Your task to perform on an android device: Open calendar and show me the fourth week of next month Image 0: 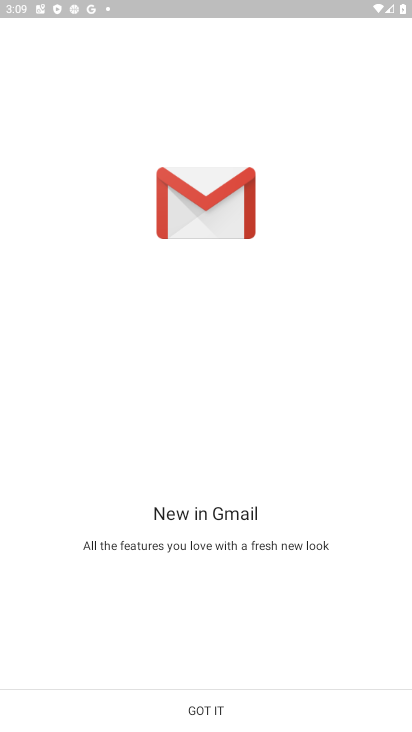
Step 0: click (188, 712)
Your task to perform on an android device: Open calendar and show me the fourth week of next month Image 1: 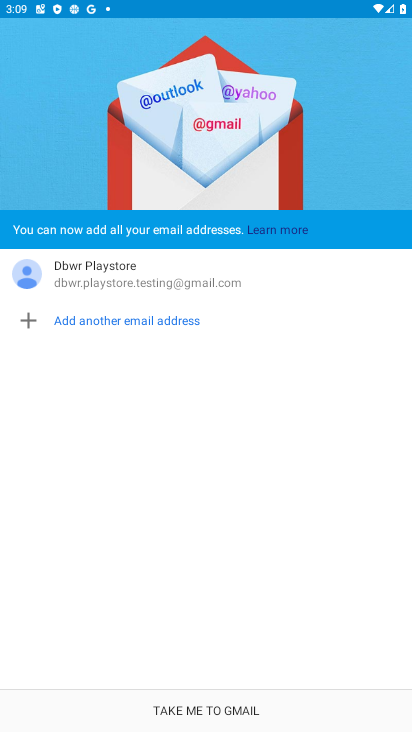
Step 1: press home button
Your task to perform on an android device: Open calendar and show me the fourth week of next month Image 2: 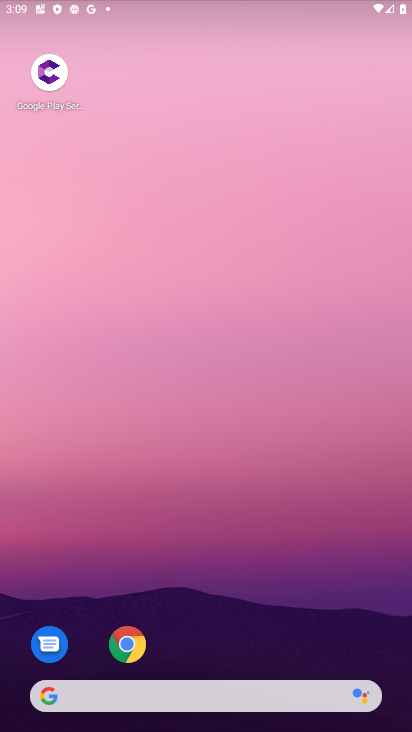
Step 2: drag from (316, 589) to (311, 131)
Your task to perform on an android device: Open calendar and show me the fourth week of next month Image 3: 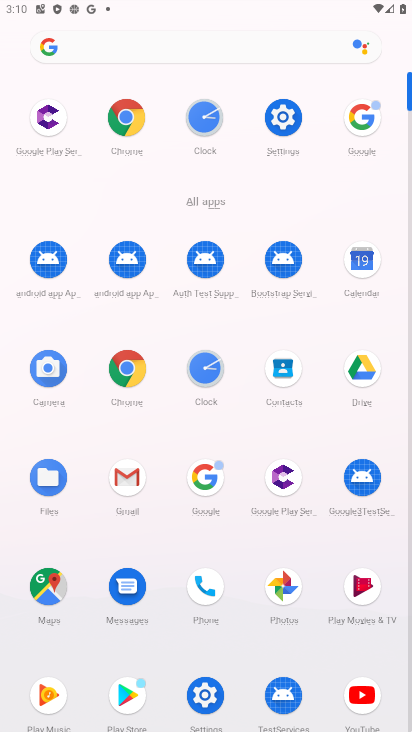
Step 3: click (364, 265)
Your task to perform on an android device: Open calendar and show me the fourth week of next month Image 4: 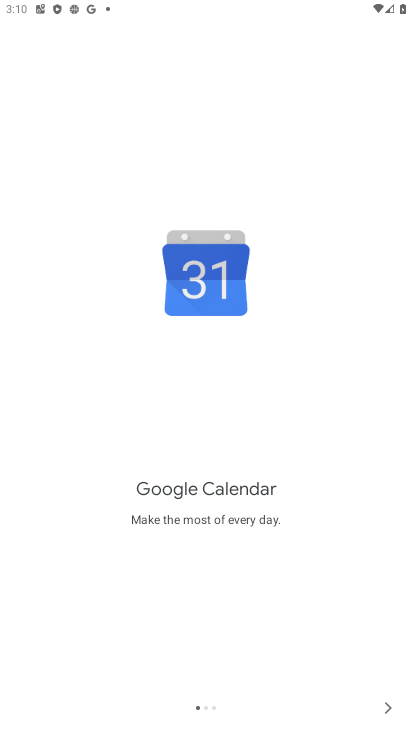
Step 4: click (380, 712)
Your task to perform on an android device: Open calendar and show me the fourth week of next month Image 5: 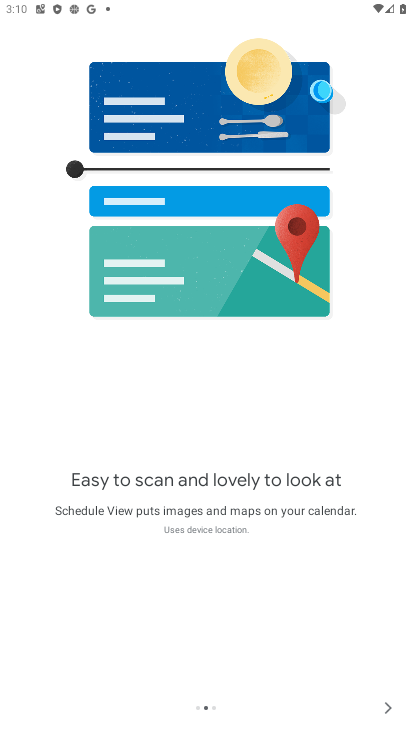
Step 5: click (380, 712)
Your task to perform on an android device: Open calendar and show me the fourth week of next month Image 6: 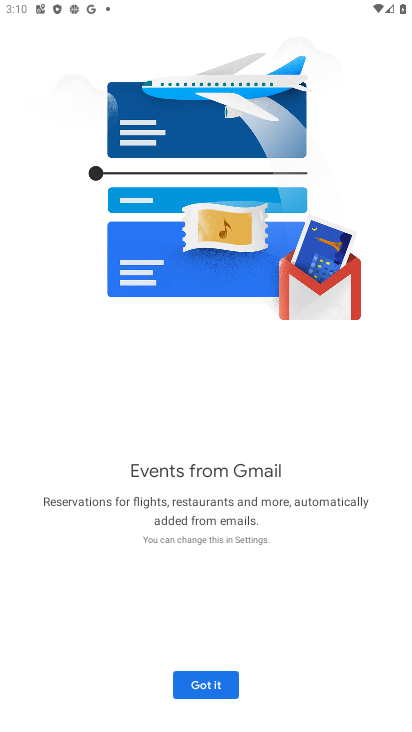
Step 6: click (204, 687)
Your task to perform on an android device: Open calendar and show me the fourth week of next month Image 7: 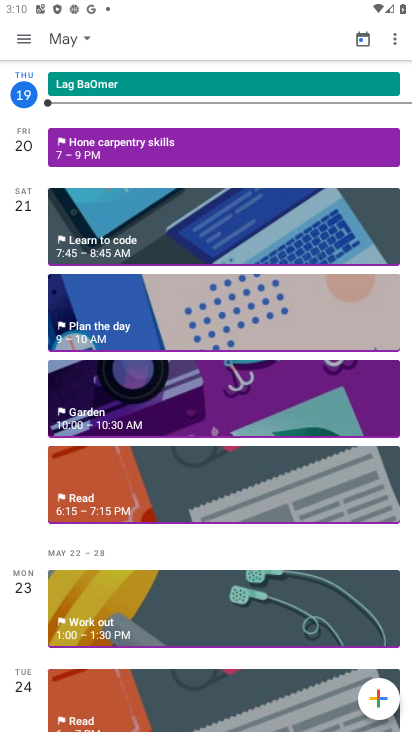
Step 7: click (77, 42)
Your task to perform on an android device: Open calendar and show me the fourth week of next month Image 8: 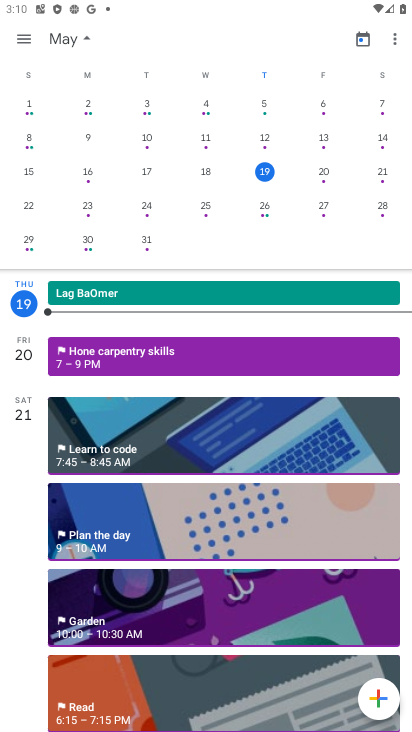
Step 8: drag from (380, 203) to (0, 199)
Your task to perform on an android device: Open calendar and show me the fourth week of next month Image 9: 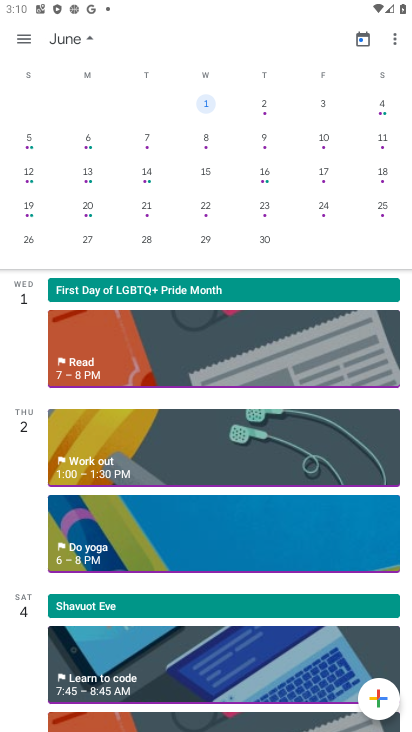
Step 9: click (30, 210)
Your task to perform on an android device: Open calendar and show me the fourth week of next month Image 10: 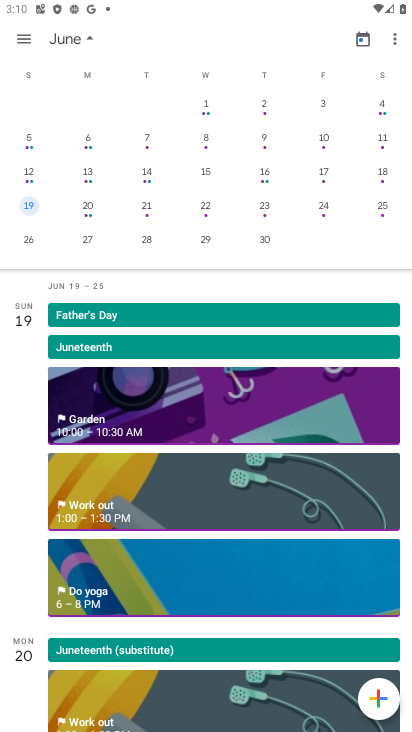
Step 10: click (85, 215)
Your task to perform on an android device: Open calendar and show me the fourth week of next month Image 11: 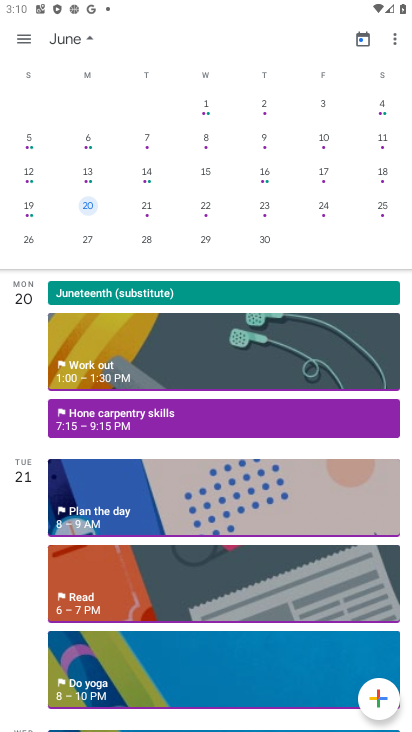
Step 11: click (146, 210)
Your task to perform on an android device: Open calendar and show me the fourth week of next month Image 12: 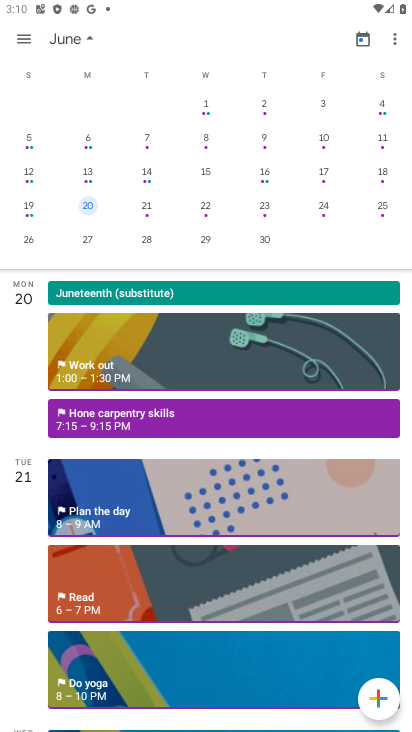
Step 12: click (210, 213)
Your task to perform on an android device: Open calendar and show me the fourth week of next month Image 13: 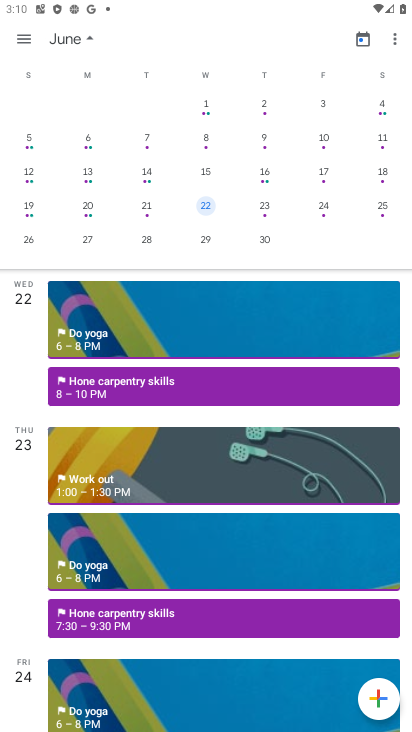
Step 13: click (268, 213)
Your task to perform on an android device: Open calendar and show me the fourth week of next month Image 14: 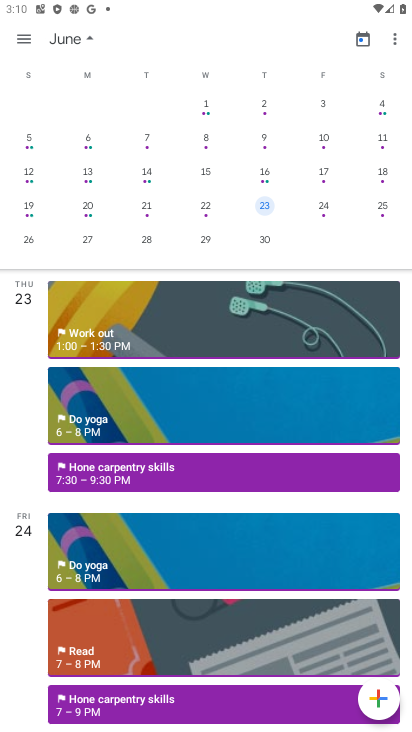
Step 14: click (323, 210)
Your task to perform on an android device: Open calendar and show me the fourth week of next month Image 15: 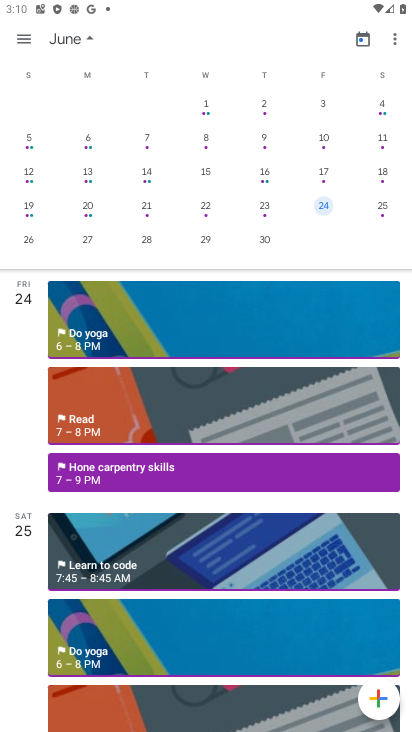
Step 15: click (383, 215)
Your task to perform on an android device: Open calendar and show me the fourth week of next month Image 16: 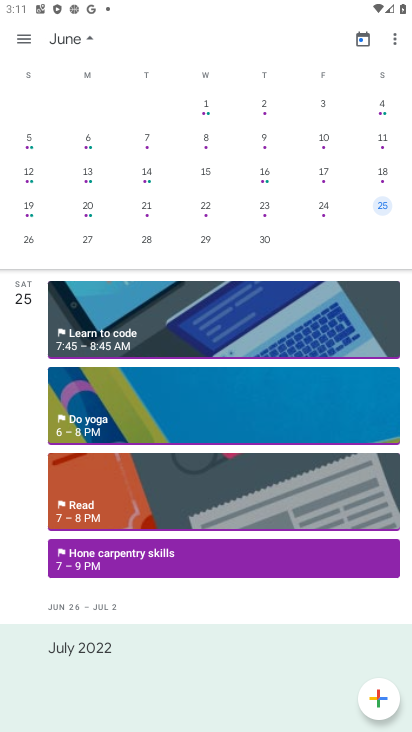
Step 16: task complete